Your task to perform on an android device: Find coffee shops on Maps Image 0: 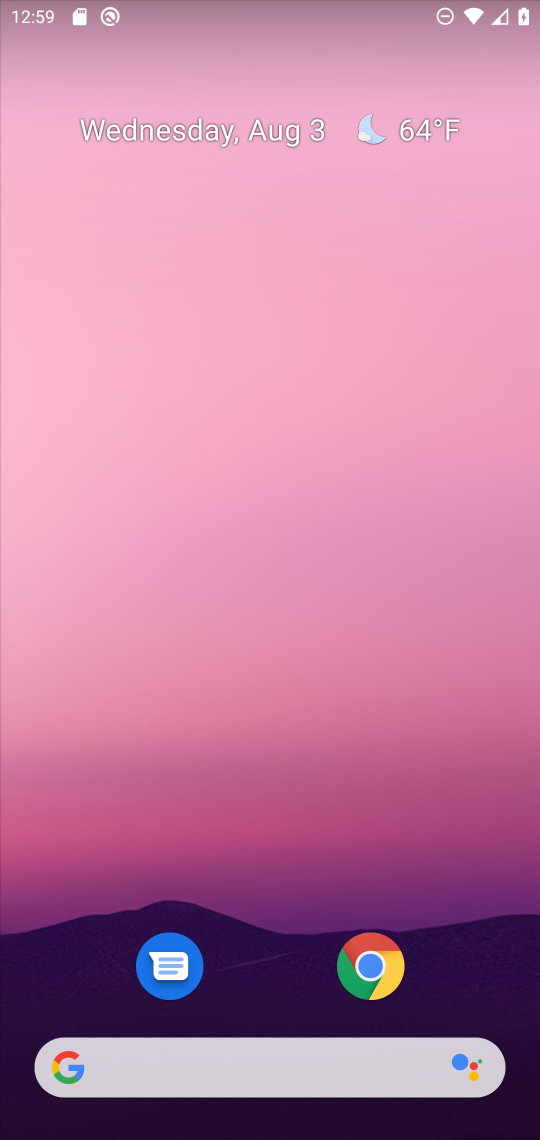
Step 0: drag from (268, 995) to (192, 338)
Your task to perform on an android device: Find coffee shops on Maps Image 1: 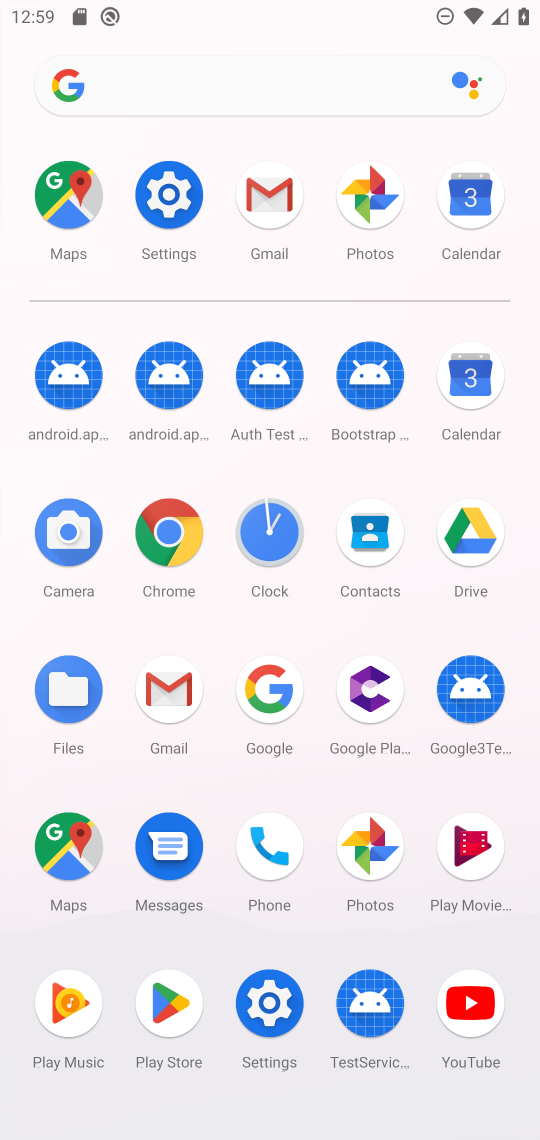
Step 1: click (89, 198)
Your task to perform on an android device: Find coffee shops on Maps Image 2: 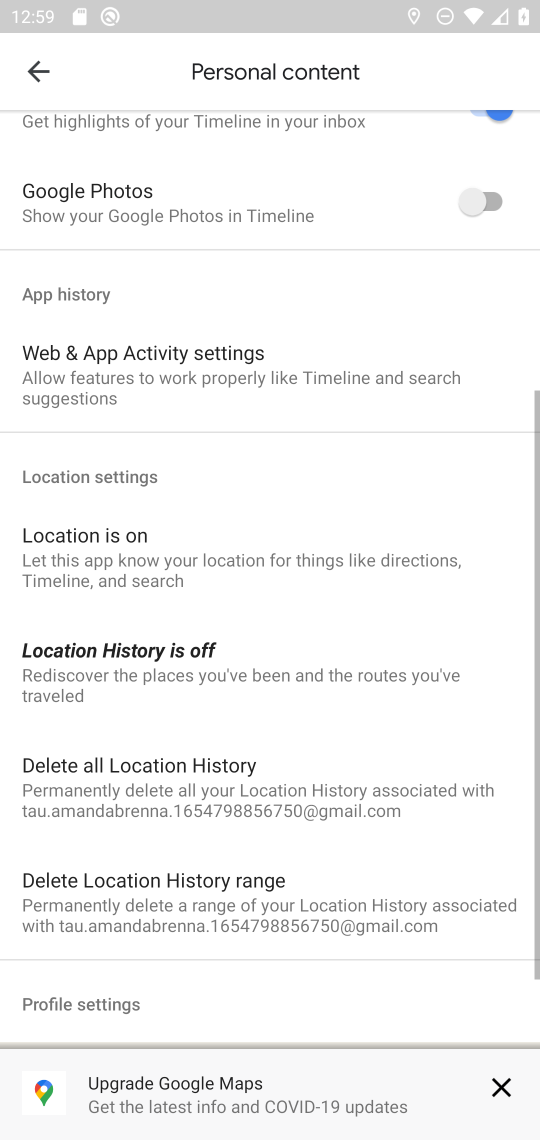
Step 2: click (43, 53)
Your task to perform on an android device: Find coffee shops on Maps Image 3: 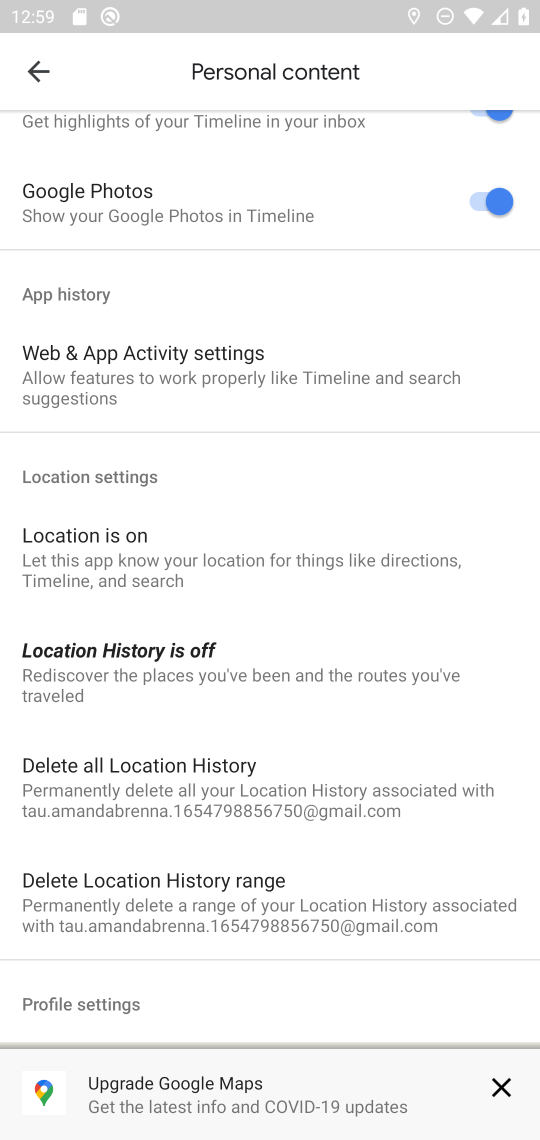
Step 3: click (52, 73)
Your task to perform on an android device: Find coffee shops on Maps Image 4: 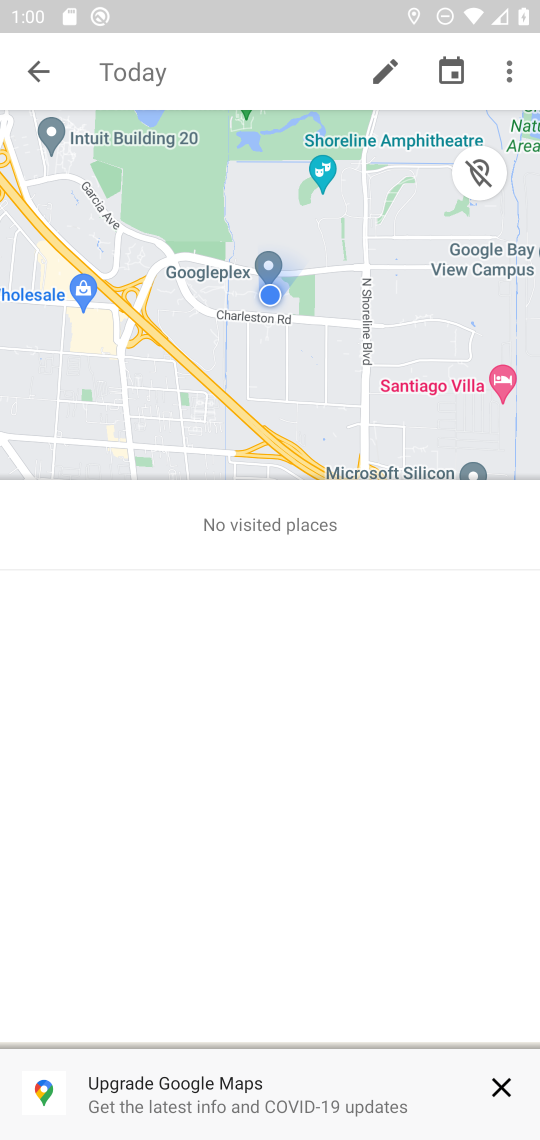
Step 4: click (23, 66)
Your task to perform on an android device: Find coffee shops on Maps Image 5: 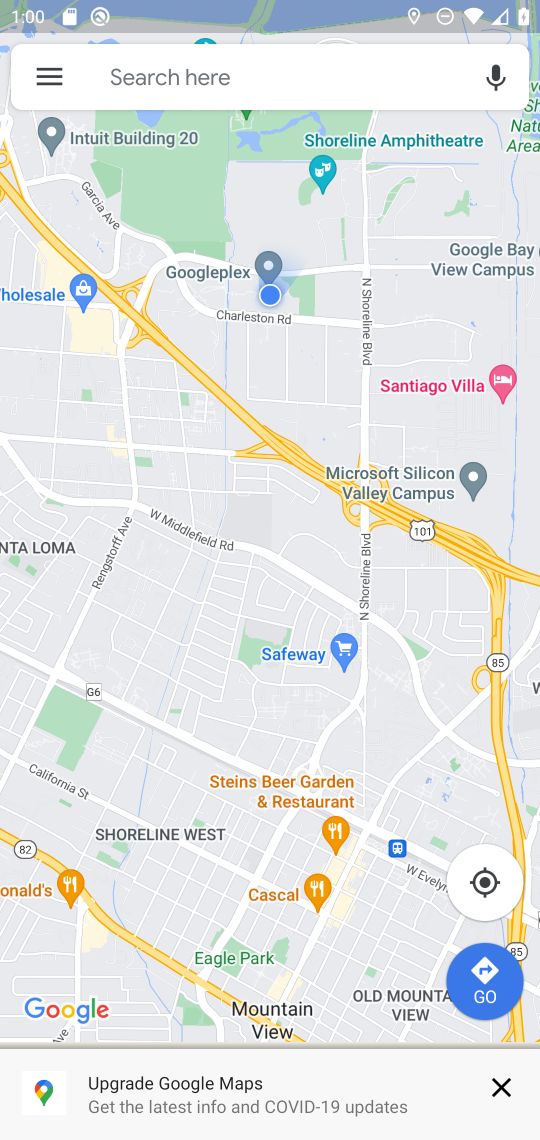
Step 5: click (320, 67)
Your task to perform on an android device: Find coffee shops on Maps Image 6: 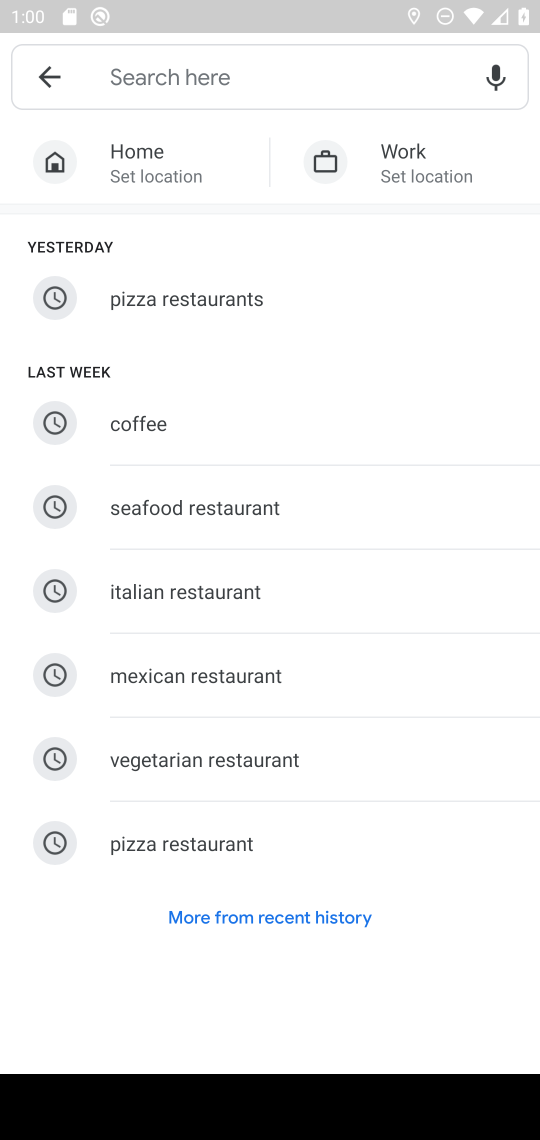
Step 6: type "coffee shops"
Your task to perform on an android device: Find coffee shops on Maps Image 7: 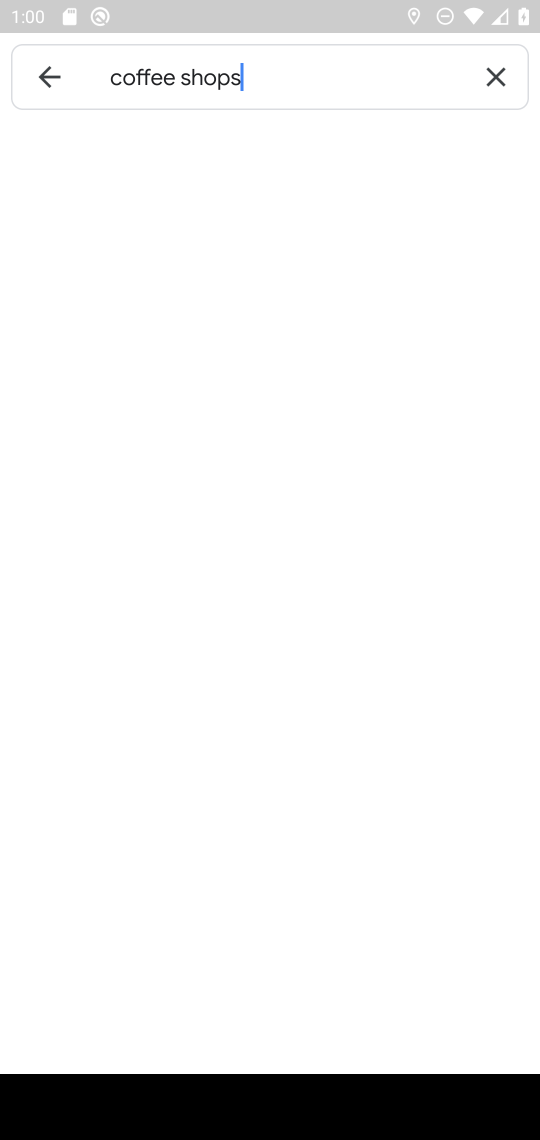
Step 7: type ""
Your task to perform on an android device: Find coffee shops on Maps Image 8: 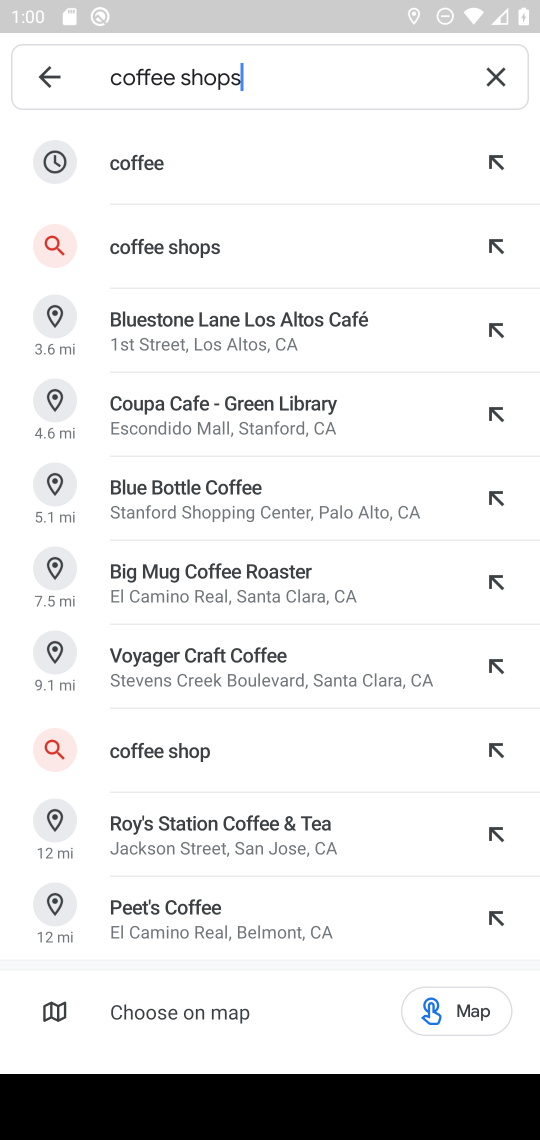
Step 8: click (197, 235)
Your task to perform on an android device: Find coffee shops on Maps Image 9: 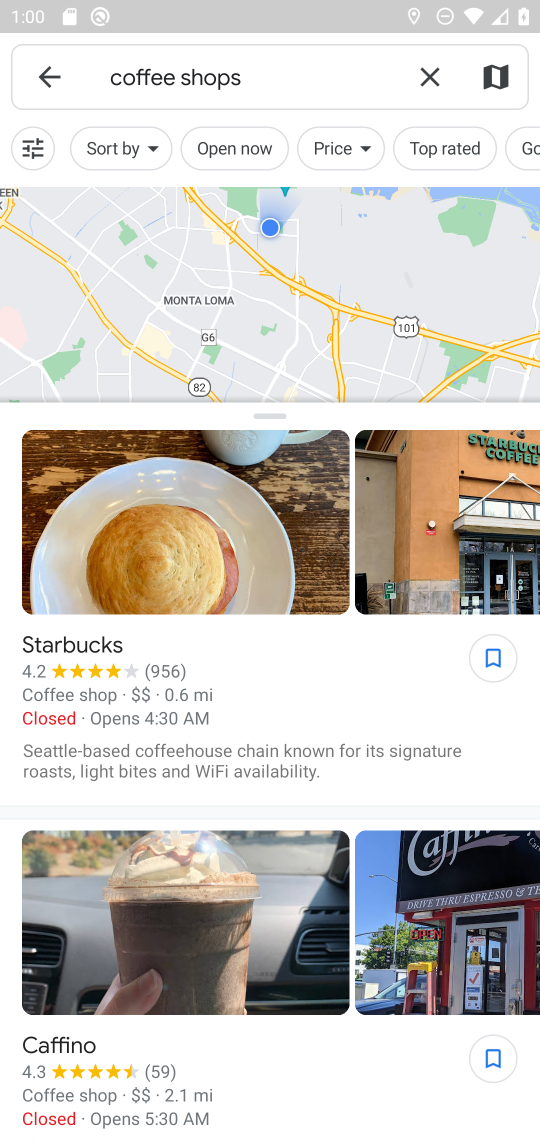
Step 9: task complete